Your task to perform on an android device: turn smart compose on in the gmail app Image 0: 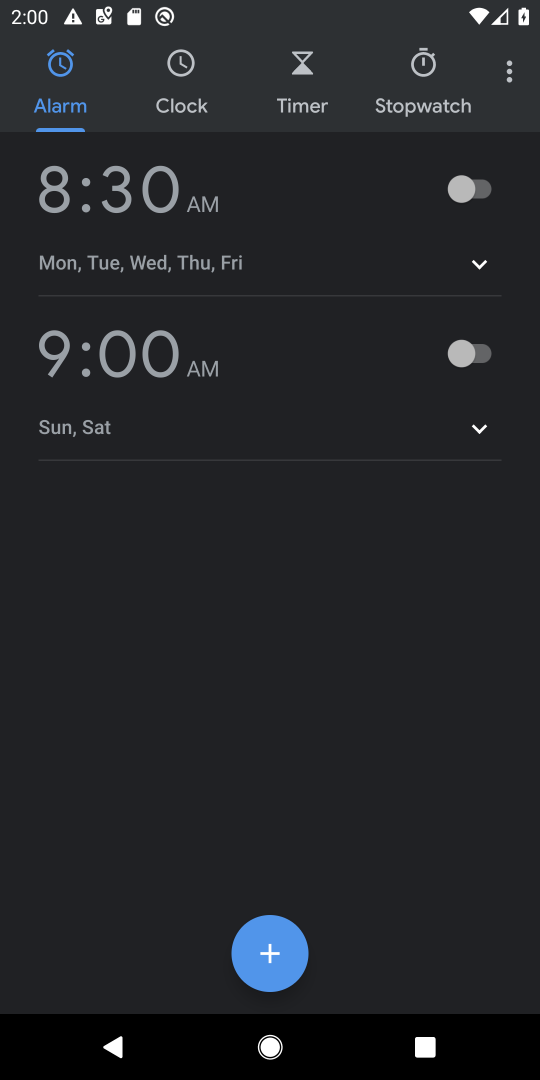
Step 0: press home button
Your task to perform on an android device: turn smart compose on in the gmail app Image 1: 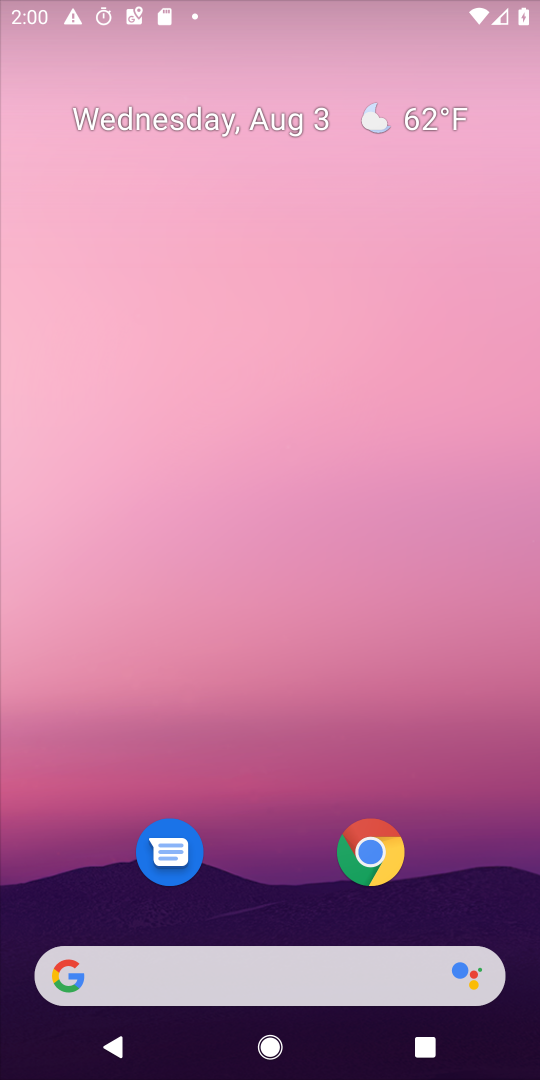
Step 1: drag from (499, 945) to (281, 31)
Your task to perform on an android device: turn smart compose on in the gmail app Image 2: 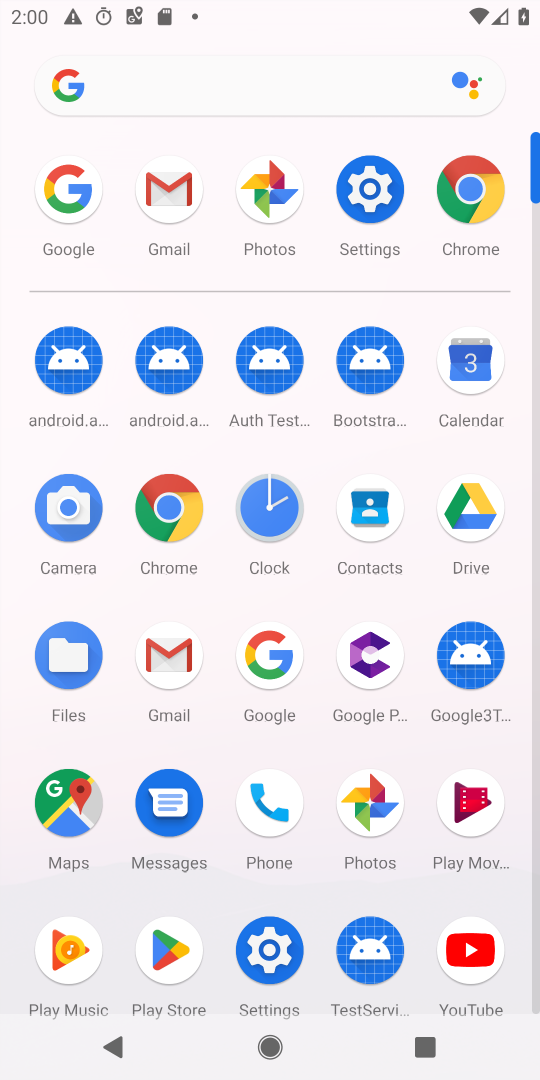
Step 2: click (154, 660)
Your task to perform on an android device: turn smart compose on in the gmail app Image 3: 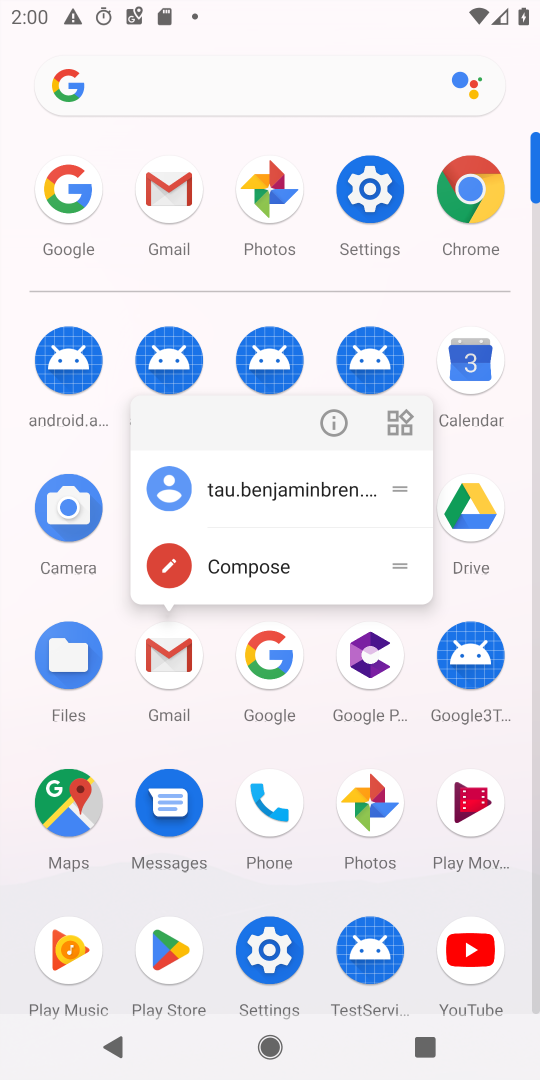
Step 3: click (154, 660)
Your task to perform on an android device: turn smart compose on in the gmail app Image 4: 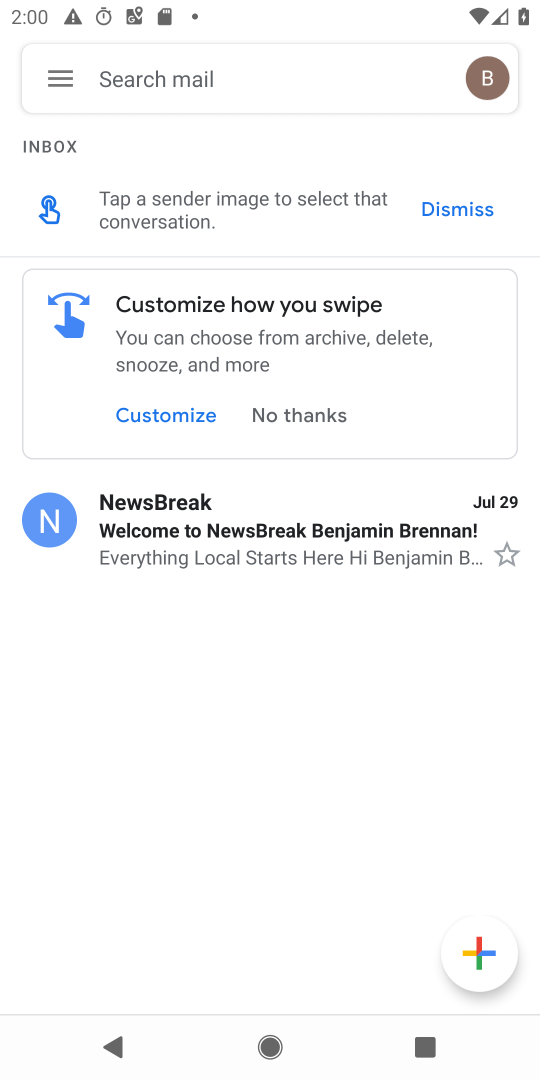
Step 4: click (65, 79)
Your task to perform on an android device: turn smart compose on in the gmail app Image 5: 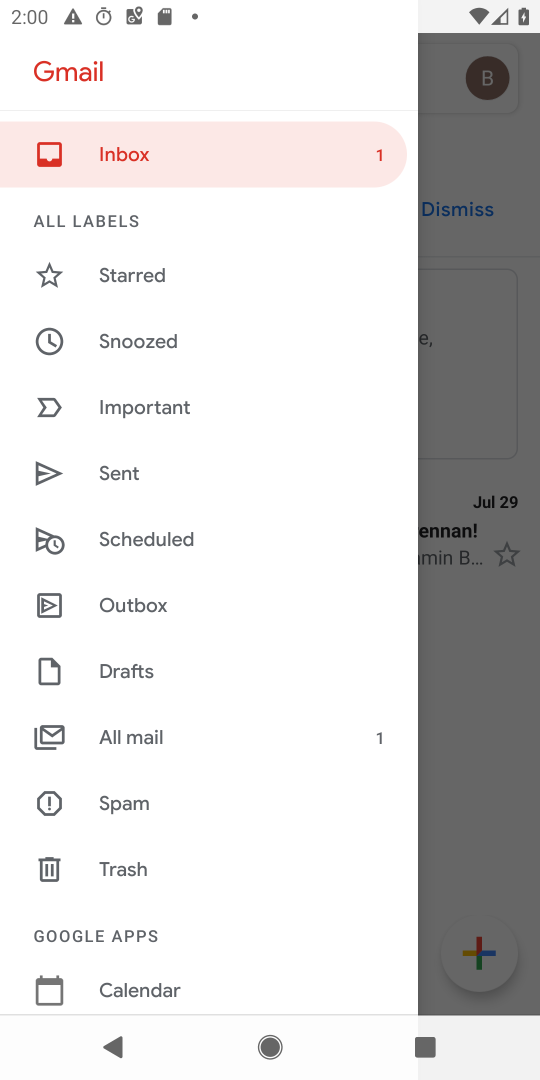
Step 5: drag from (118, 969) to (147, 140)
Your task to perform on an android device: turn smart compose on in the gmail app Image 6: 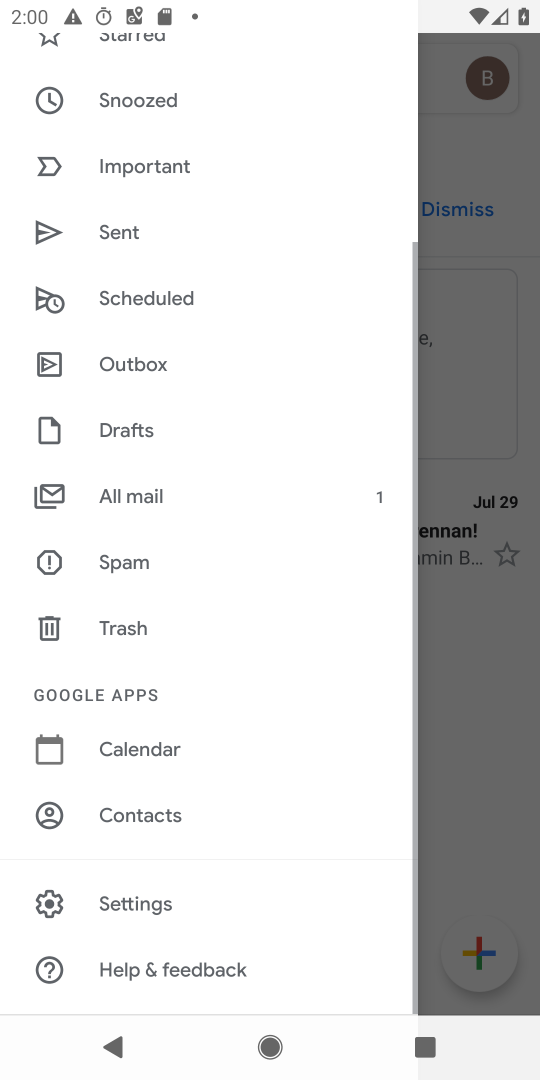
Step 6: click (94, 914)
Your task to perform on an android device: turn smart compose on in the gmail app Image 7: 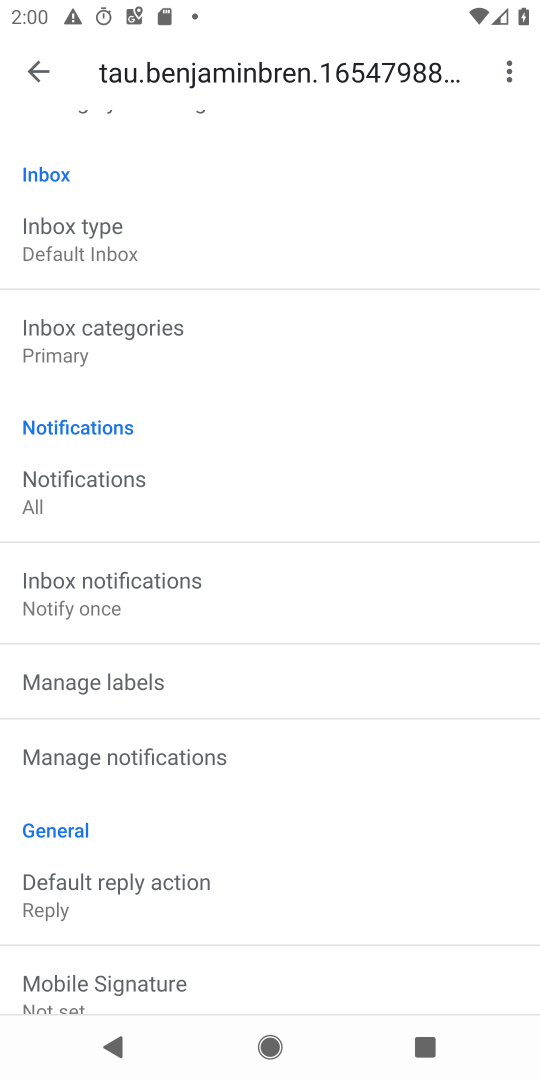
Step 7: task complete